Your task to perform on an android device: turn smart compose on in the gmail app Image 0: 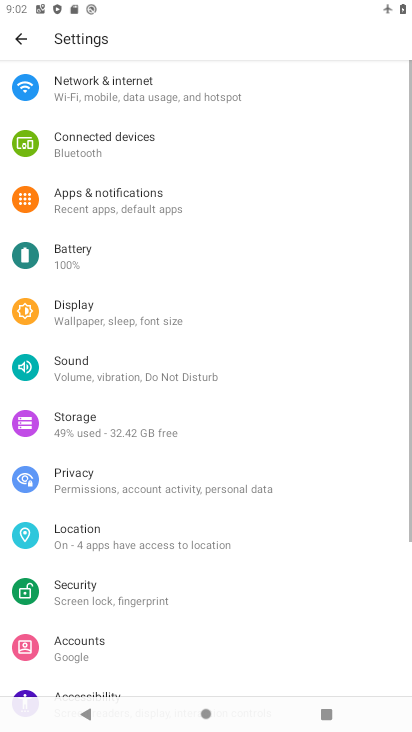
Step 0: press home button
Your task to perform on an android device: turn smart compose on in the gmail app Image 1: 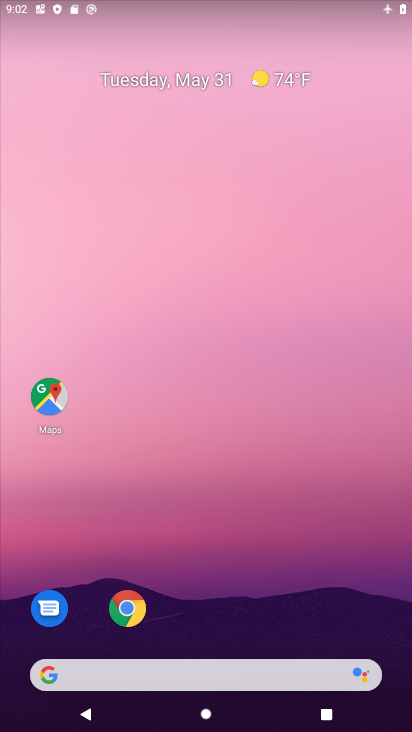
Step 1: drag from (227, 636) to (97, 199)
Your task to perform on an android device: turn smart compose on in the gmail app Image 2: 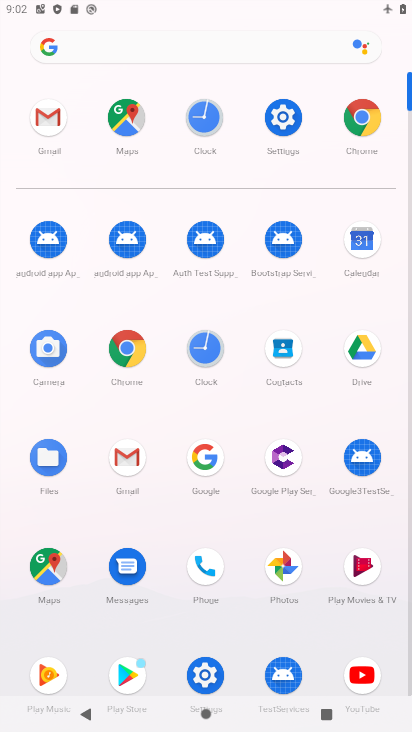
Step 2: click (135, 467)
Your task to perform on an android device: turn smart compose on in the gmail app Image 3: 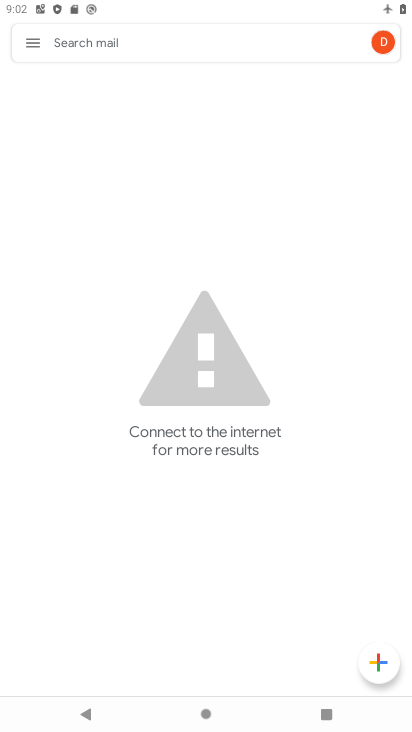
Step 3: click (35, 44)
Your task to perform on an android device: turn smart compose on in the gmail app Image 4: 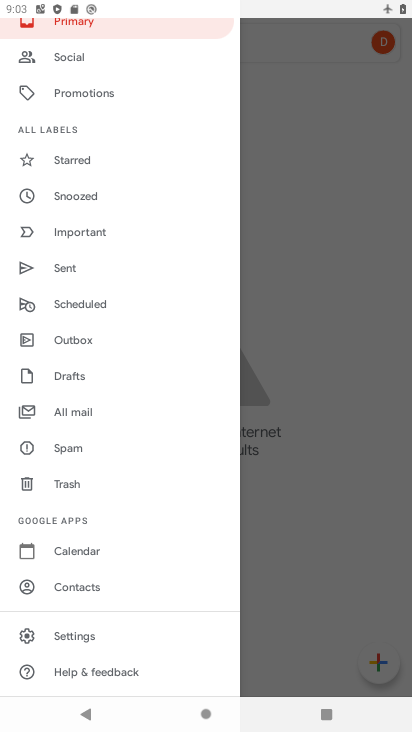
Step 4: click (54, 648)
Your task to perform on an android device: turn smart compose on in the gmail app Image 5: 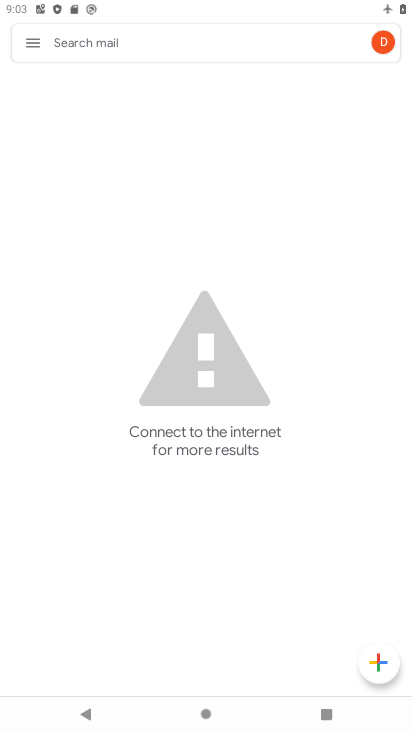
Step 5: click (54, 648)
Your task to perform on an android device: turn smart compose on in the gmail app Image 6: 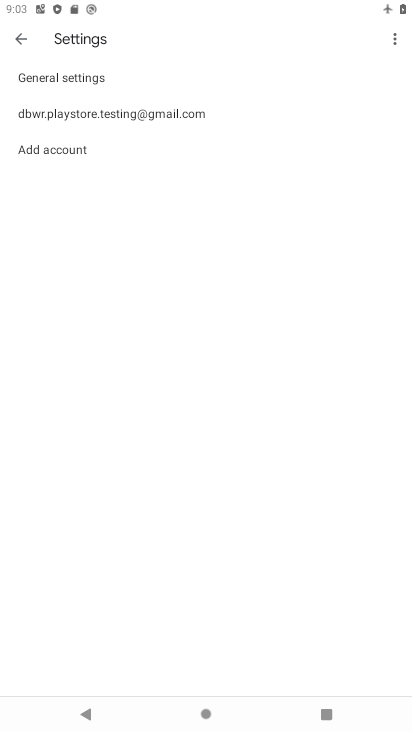
Step 6: click (74, 121)
Your task to perform on an android device: turn smart compose on in the gmail app Image 7: 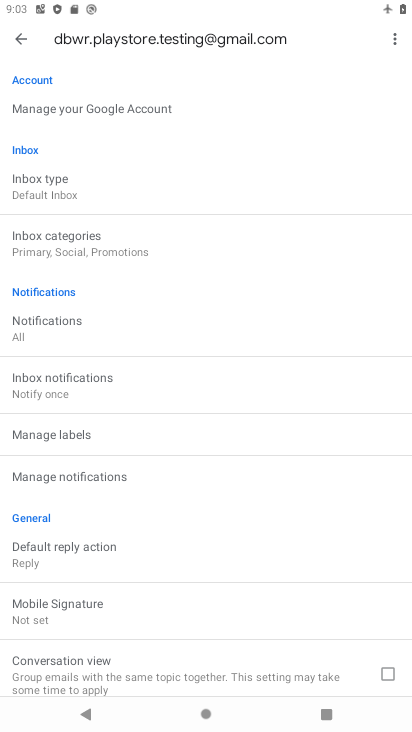
Step 7: task complete